Your task to perform on an android device: change notification settings in the gmail app Image 0: 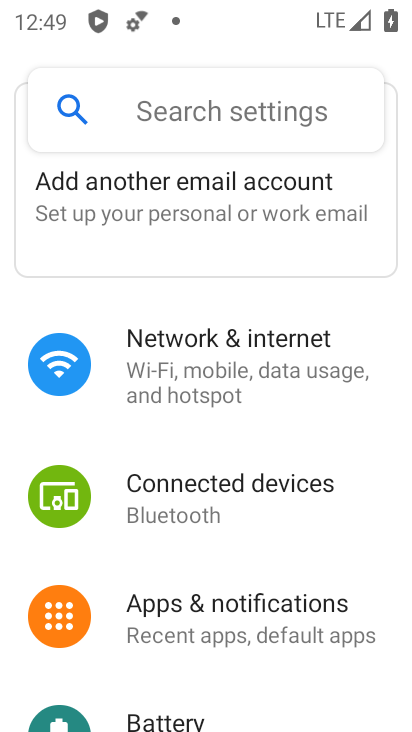
Step 0: press home button
Your task to perform on an android device: change notification settings in the gmail app Image 1: 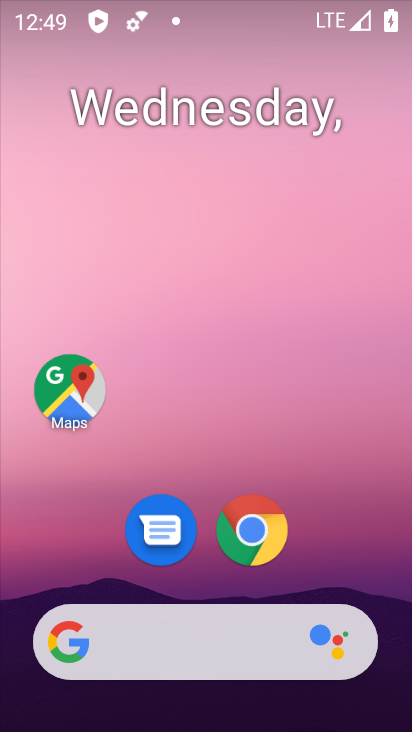
Step 1: drag from (324, 563) to (324, 213)
Your task to perform on an android device: change notification settings in the gmail app Image 2: 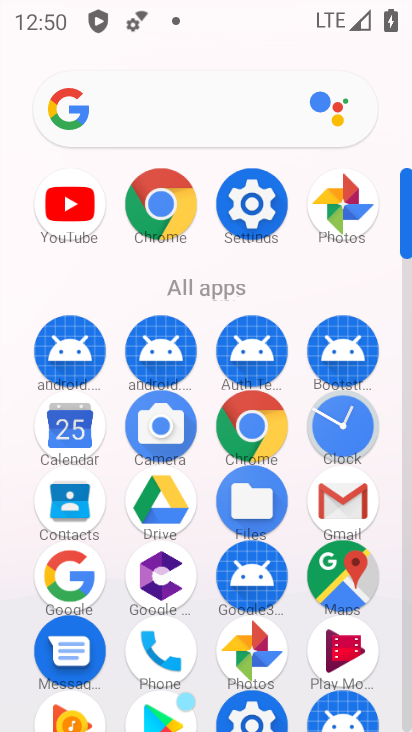
Step 2: click (271, 220)
Your task to perform on an android device: change notification settings in the gmail app Image 3: 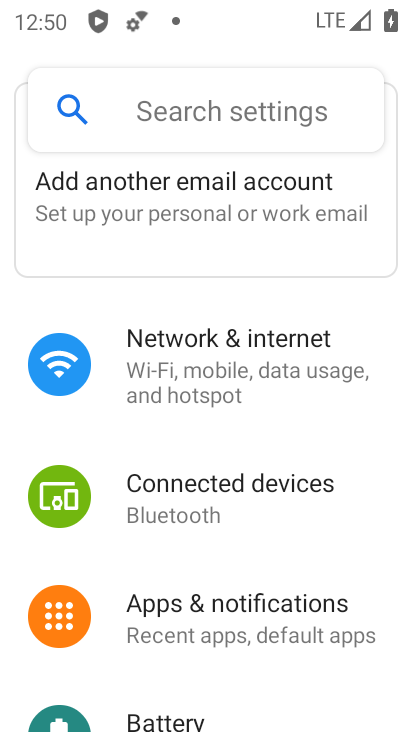
Step 3: drag from (341, 568) to (322, 298)
Your task to perform on an android device: change notification settings in the gmail app Image 4: 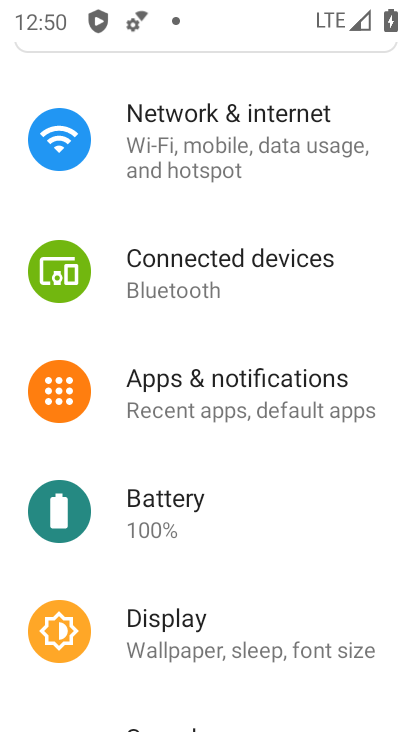
Step 4: drag from (315, 210) to (292, 531)
Your task to perform on an android device: change notification settings in the gmail app Image 5: 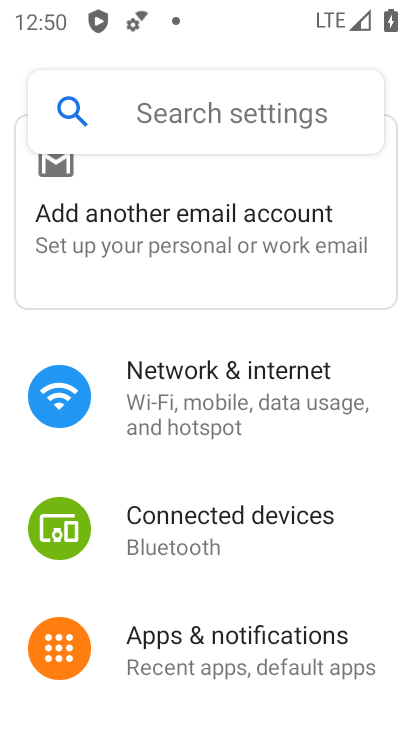
Step 5: drag from (282, 595) to (258, 373)
Your task to perform on an android device: change notification settings in the gmail app Image 6: 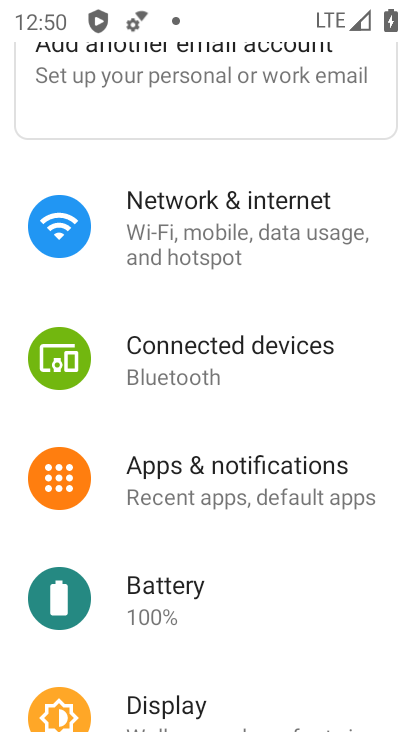
Step 6: click (234, 460)
Your task to perform on an android device: change notification settings in the gmail app Image 7: 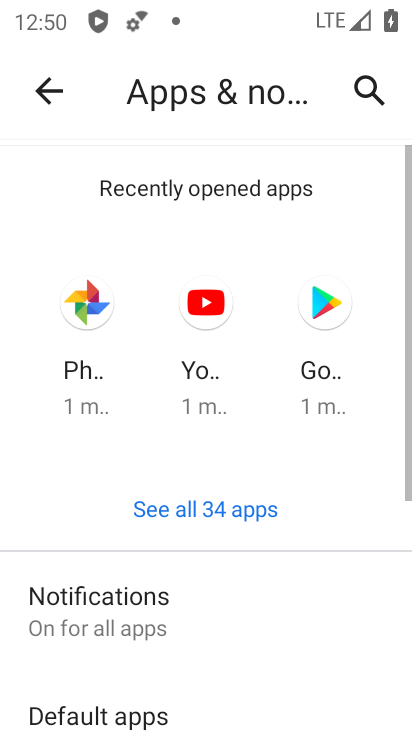
Step 7: drag from (252, 621) to (225, 318)
Your task to perform on an android device: change notification settings in the gmail app Image 8: 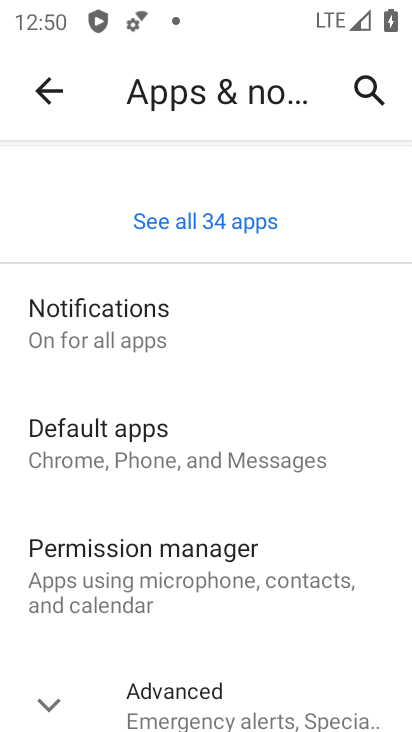
Step 8: click (162, 332)
Your task to perform on an android device: change notification settings in the gmail app Image 9: 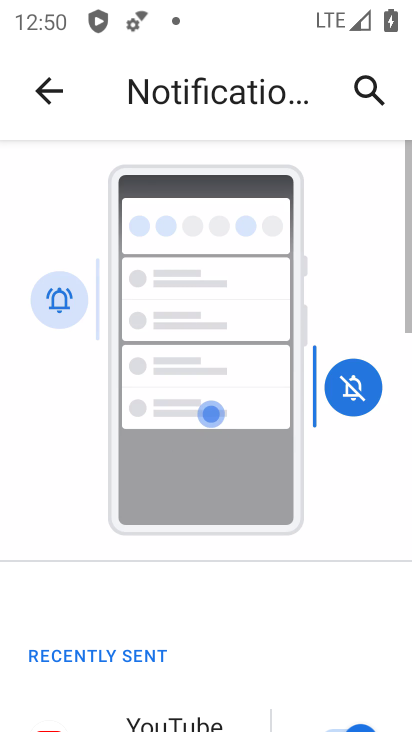
Step 9: drag from (244, 616) to (252, 315)
Your task to perform on an android device: change notification settings in the gmail app Image 10: 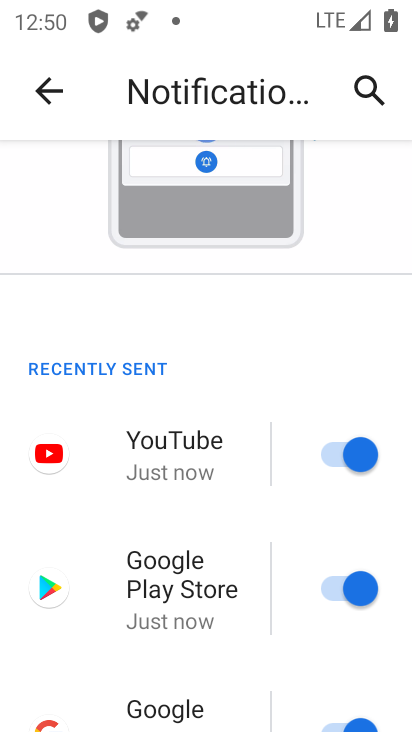
Step 10: click (331, 450)
Your task to perform on an android device: change notification settings in the gmail app Image 11: 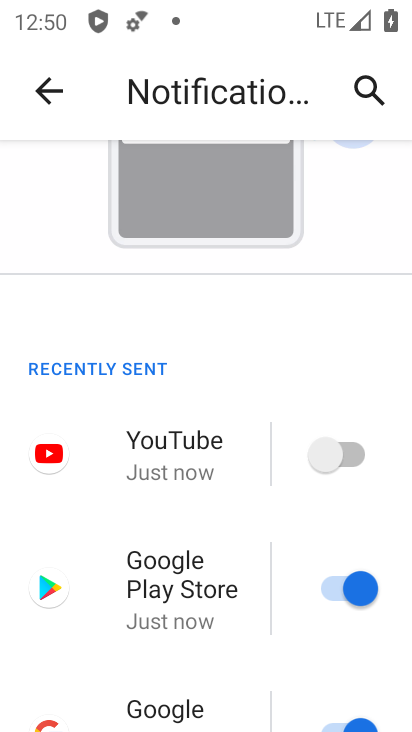
Step 11: task complete